Your task to perform on an android device: Open calendar and show me the first week of next month Image 0: 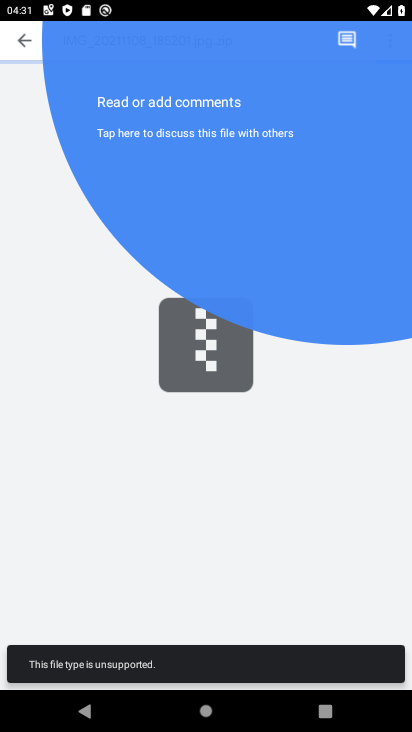
Step 0: press home button
Your task to perform on an android device: Open calendar and show me the first week of next month Image 1: 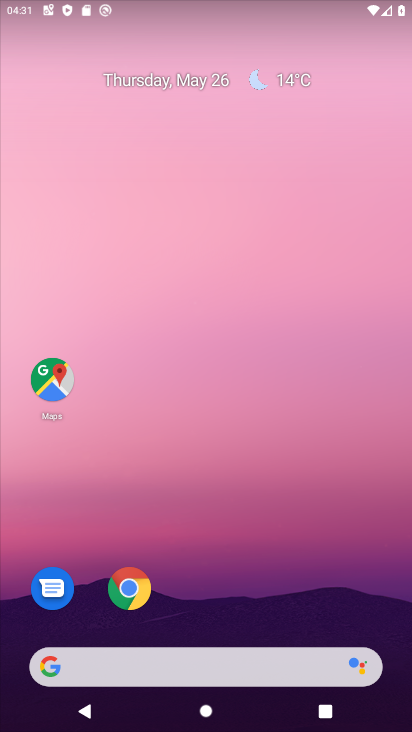
Step 1: drag from (293, 586) to (305, 144)
Your task to perform on an android device: Open calendar and show me the first week of next month Image 2: 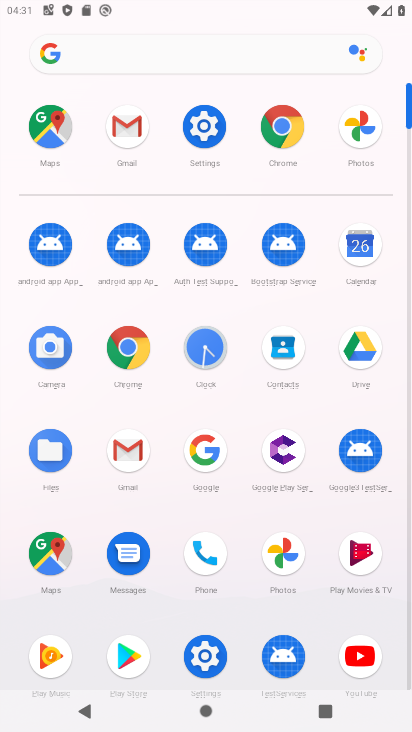
Step 2: click (189, 142)
Your task to perform on an android device: Open calendar and show me the first week of next month Image 3: 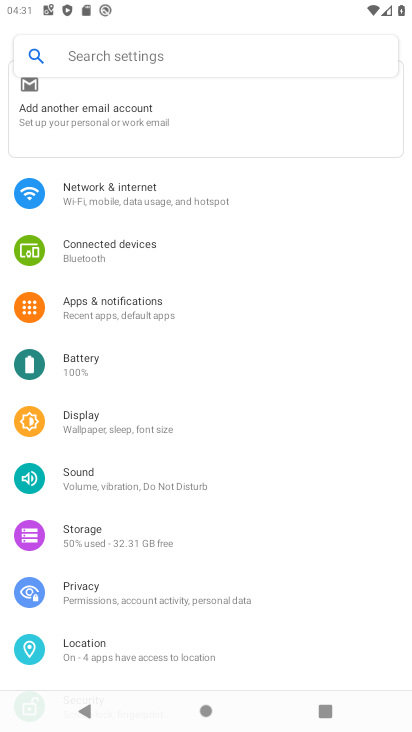
Step 3: press home button
Your task to perform on an android device: Open calendar and show me the first week of next month Image 4: 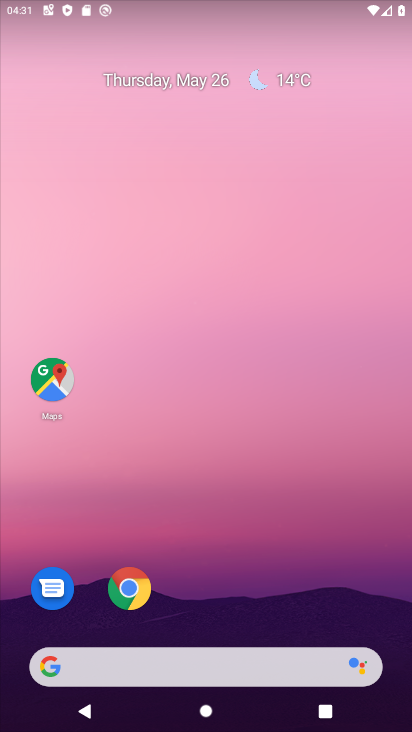
Step 4: drag from (221, 626) to (284, 97)
Your task to perform on an android device: Open calendar and show me the first week of next month Image 5: 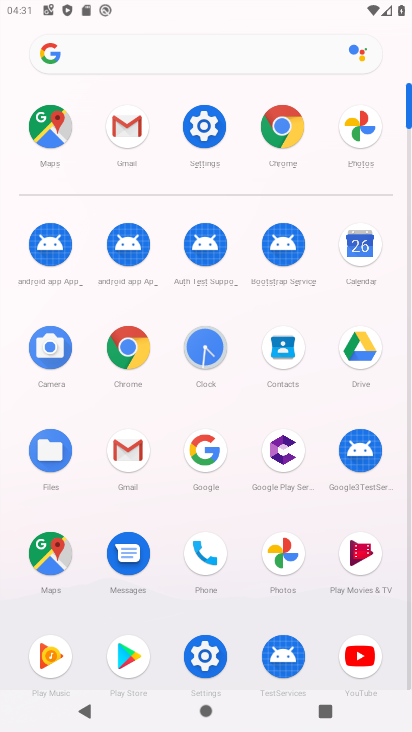
Step 5: click (207, 655)
Your task to perform on an android device: Open calendar and show me the first week of next month Image 6: 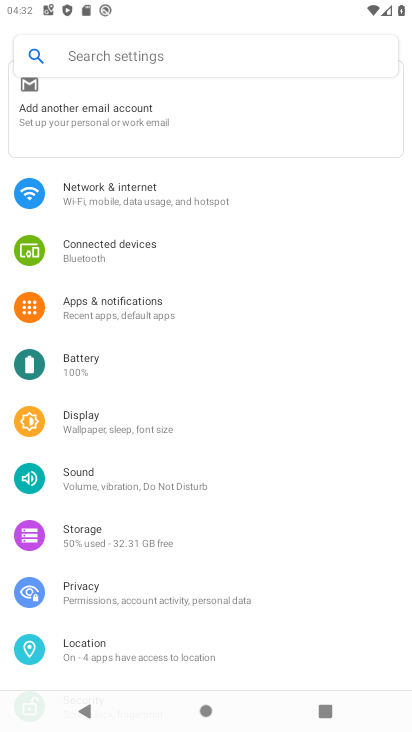
Step 6: press home button
Your task to perform on an android device: Open calendar and show me the first week of next month Image 7: 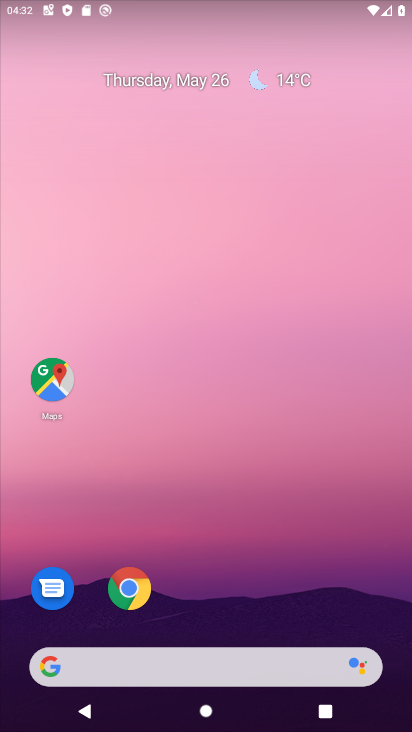
Step 7: drag from (255, 486) to (274, 89)
Your task to perform on an android device: Open calendar and show me the first week of next month Image 8: 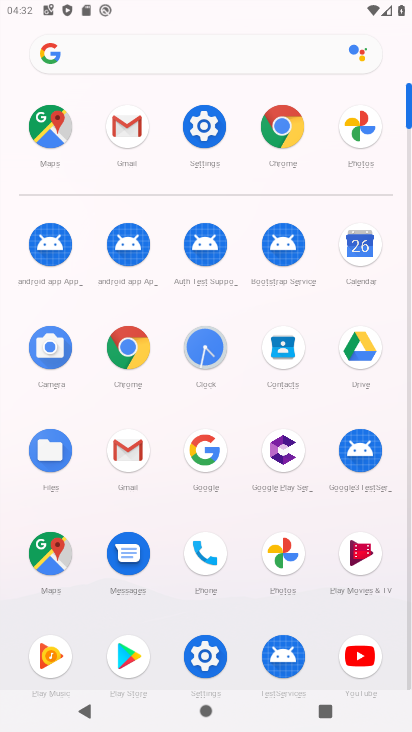
Step 8: click (360, 265)
Your task to perform on an android device: Open calendar and show me the first week of next month Image 9: 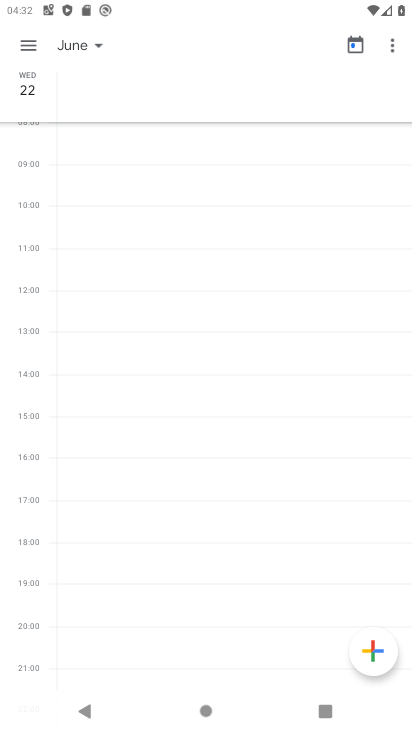
Step 9: click (103, 44)
Your task to perform on an android device: Open calendar and show me the first week of next month Image 10: 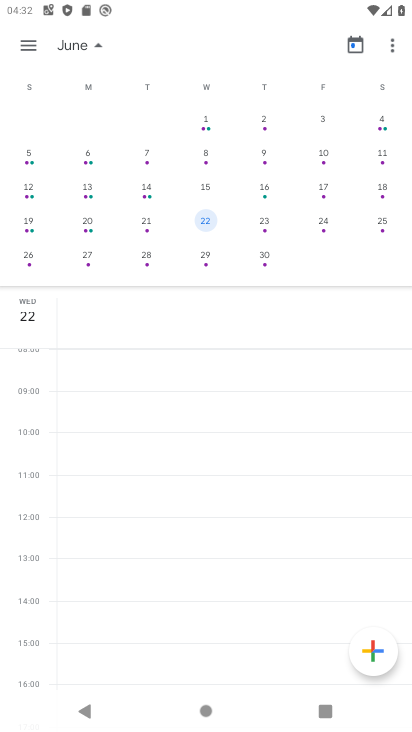
Step 10: click (215, 153)
Your task to perform on an android device: Open calendar and show me the first week of next month Image 11: 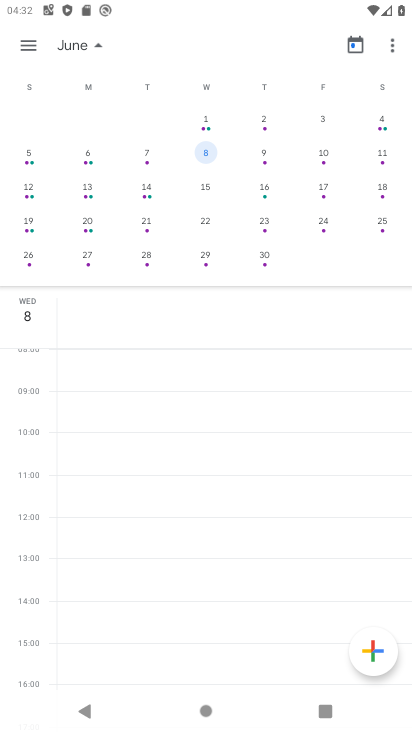
Step 11: task complete